Your task to perform on an android device: change the clock display to show seconds Image 0: 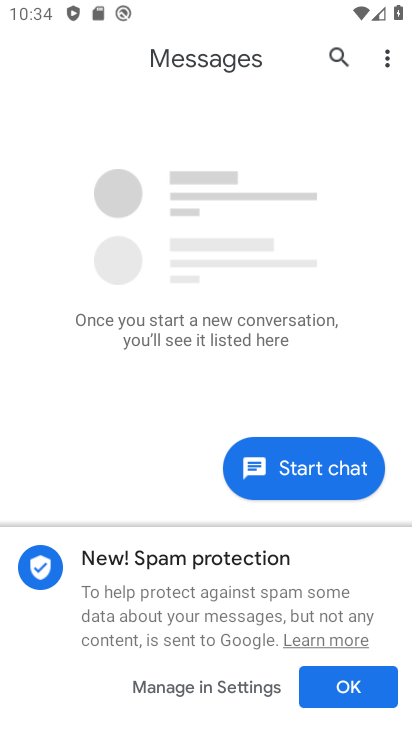
Step 0: press home button
Your task to perform on an android device: change the clock display to show seconds Image 1: 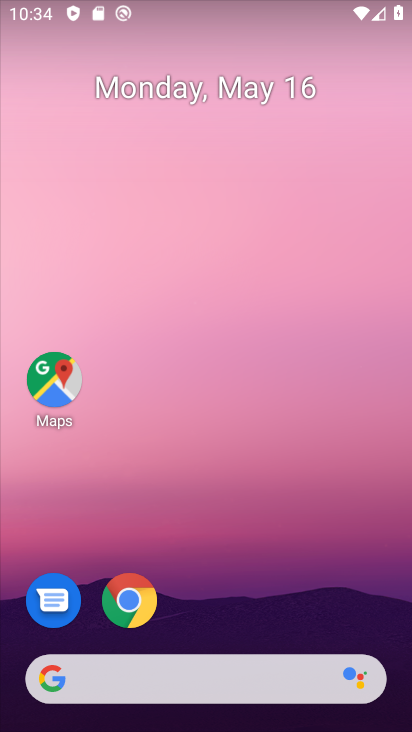
Step 1: drag from (179, 610) to (259, 319)
Your task to perform on an android device: change the clock display to show seconds Image 2: 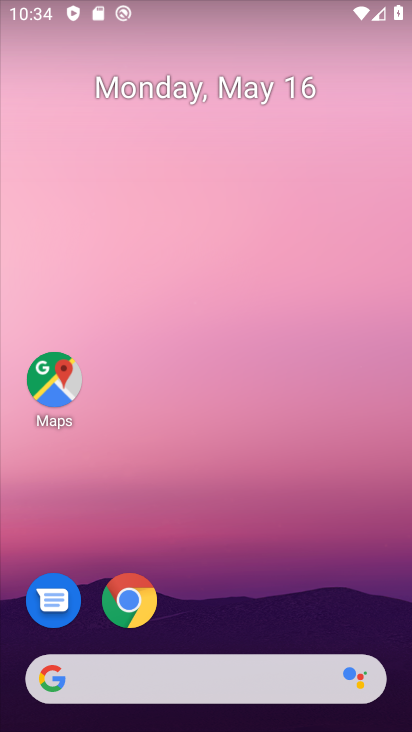
Step 2: drag from (207, 617) to (277, 250)
Your task to perform on an android device: change the clock display to show seconds Image 3: 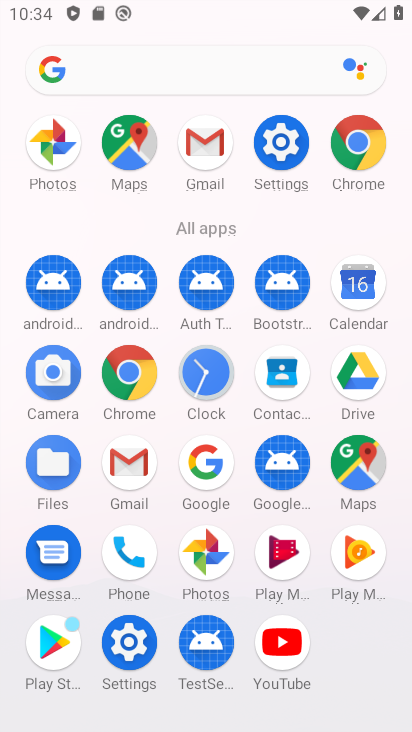
Step 3: click (203, 377)
Your task to perform on an android device: change the clock display to show seconds Image 4: 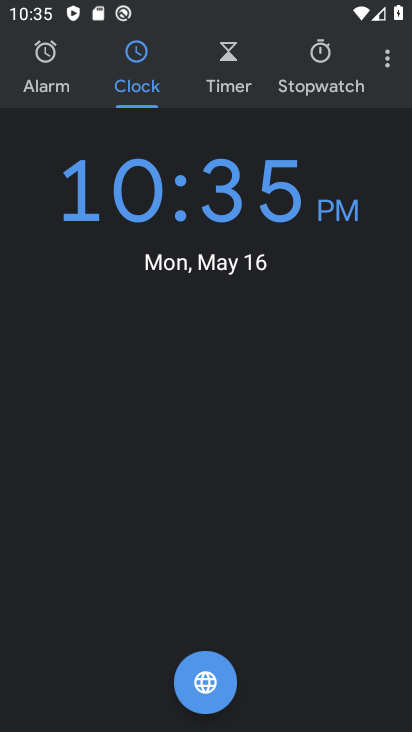
Step 4: click (390, 51)
Your task to perform on an android device: change the clock display to show seconds Image 5: 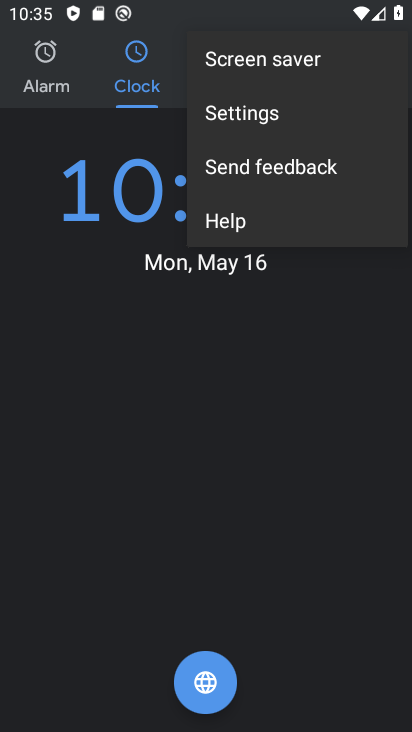
Step 5: click (281, 126)
Your task to perform on an android device: change the clock display to show seconds Image 6: 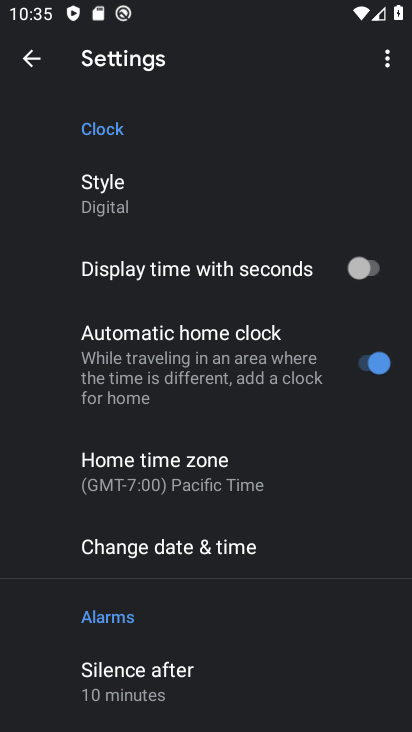
Step 6: click (374, 277)
Your task to perform on an android device: change the clock display to show seconds Image 7: 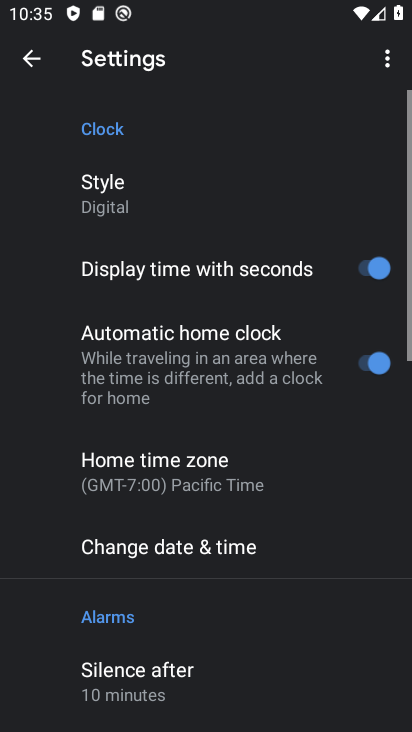
Step 7: task complete